Your task to perform on an android device: Go to Google Image 0: 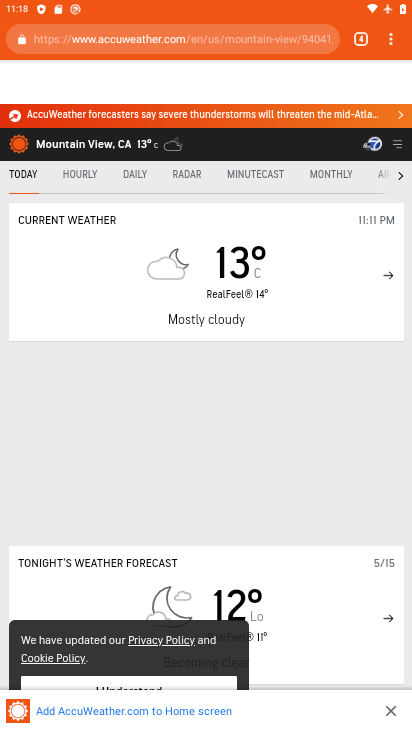
Step 0: press home button
Your task to perform on an android device: Go to Google Image 1: 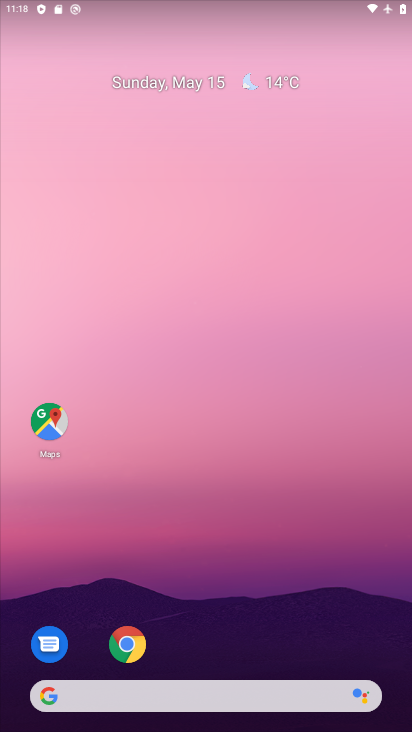
Step 1: drag from (177, 528) to (100, 27)
Your task to perform on an android device: Go to Google Image 2: 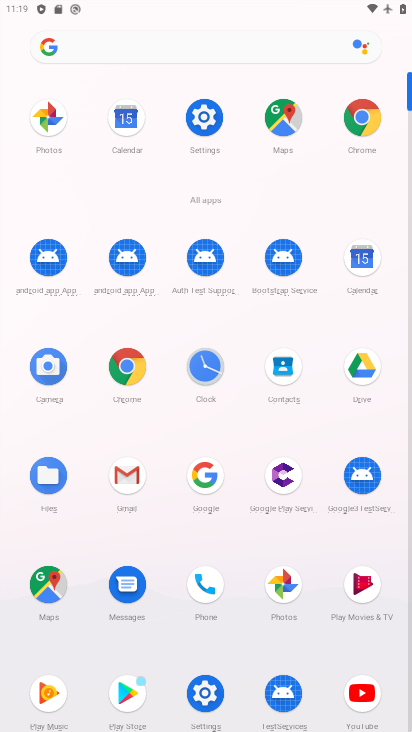
Step 2: click (224, 468)
Your task to perform on an android device: Go to Google Image 3: 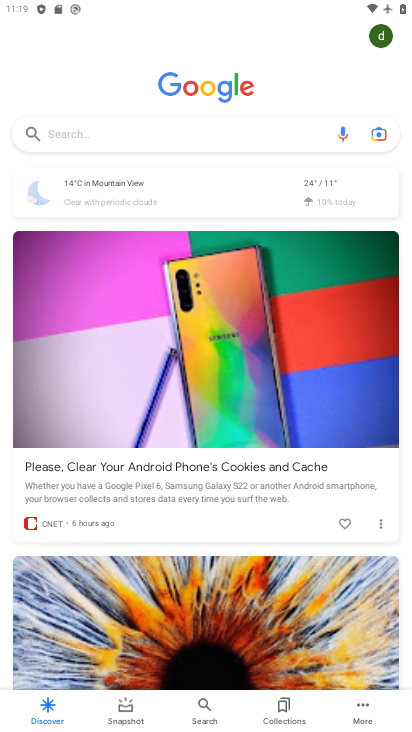
Step 3: task complete